Your task to perform on an android device: change text size in settings app Image 0: 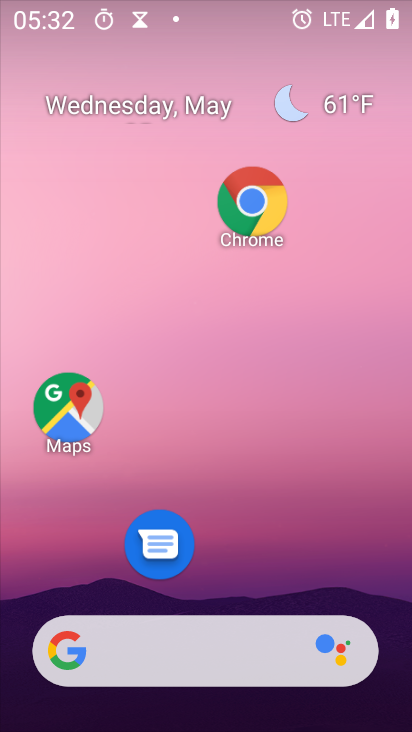
Step 0: drag from (189, 463) to (189, 251)
Your task to perform on an android device: change text size in settings app Image 1: 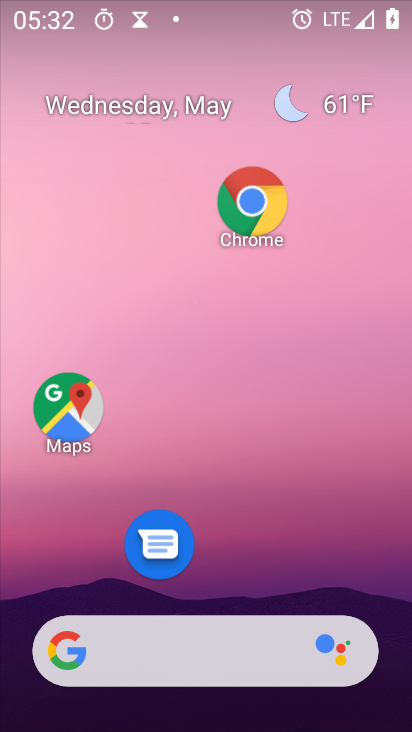
Step 1: drag from (239, 615) to (213, 163)
Your task to perform on an android device: change text size in settings app Image 2: 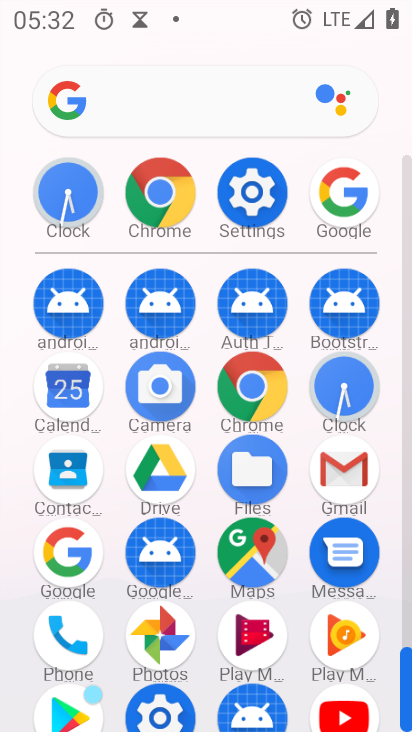
Step 2: drag from (205, 547) to (212, 308)
Your task to perform on an android device: change text size in settings app Image 3: 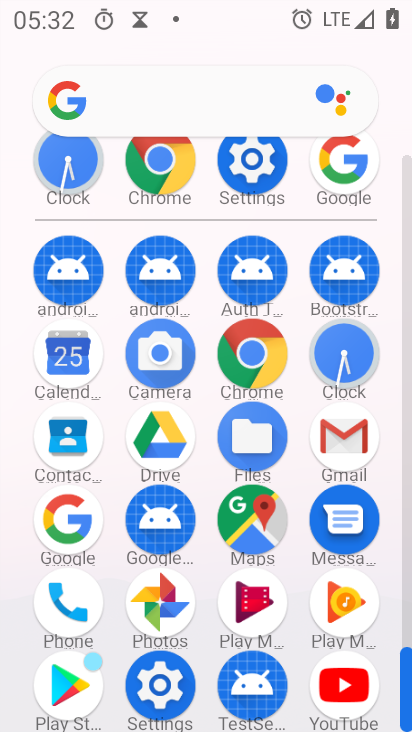
Step 3: click (167, 687)
Your task to perform on an android device: change text size in settings app Image 4: 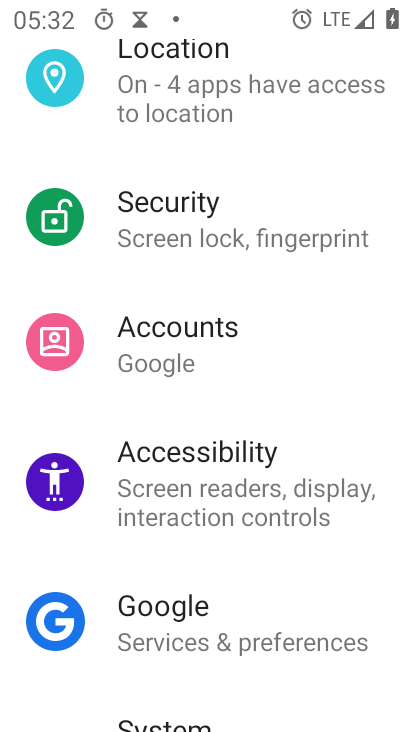
Step 4: drag from (177, 707) to (183, 265)
Your task to perform on an android device: change text size in settings app Image 5: 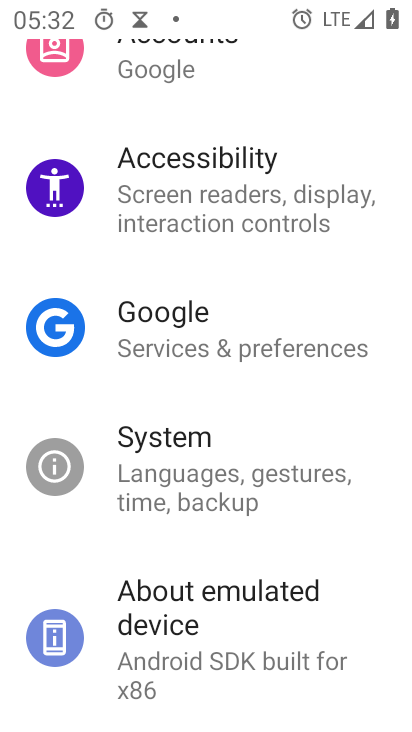
Step 5: click (228, 204)
Your task to perform on an android device: change text size in settings app Image 6: 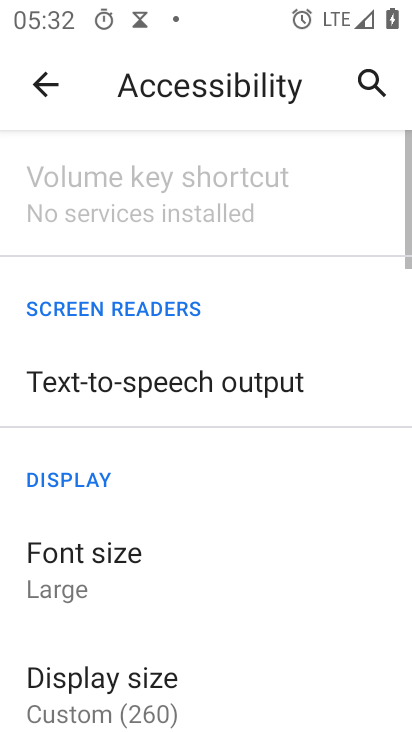
Step 6: click (193, 387)
Your task to perform on an android device: change text size in settings app Image 7: 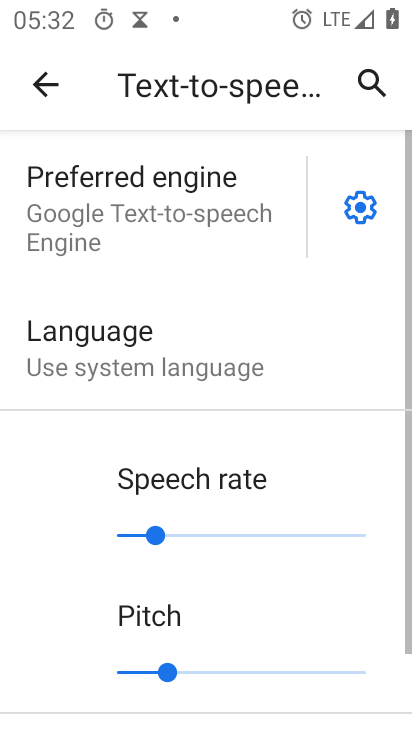
Step 7: press back button
Your task to perform on an android device: change text size in settings app Image 8: 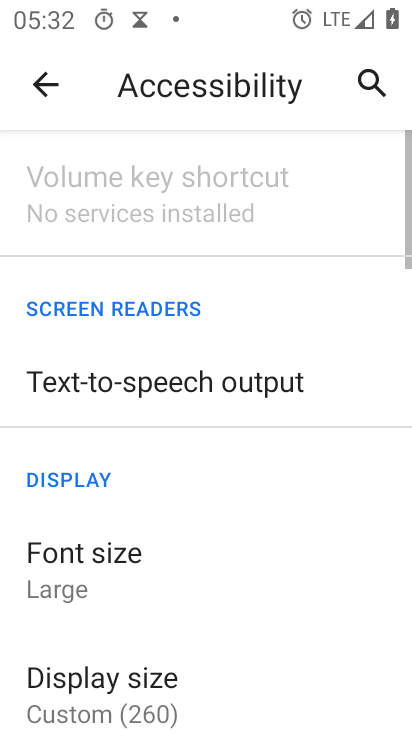
Step 8: click (76, 584)
Your task to perform on an android device: change text size in settings app Image 9: 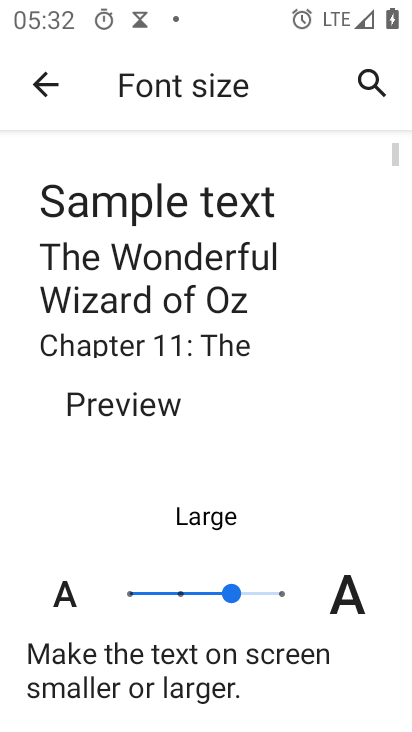
Step 9: click (185, 594)
Your task to perform on an android device: change text size in settings app Image 10: 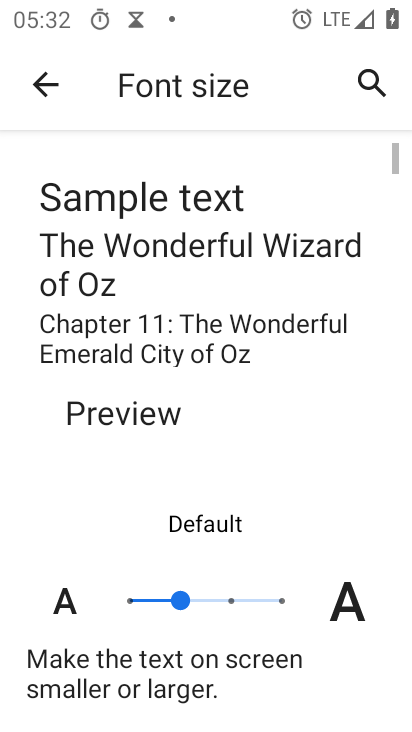
Step 10: task complete